Your task to perform on an android device: Open ESPN.com Image 0: 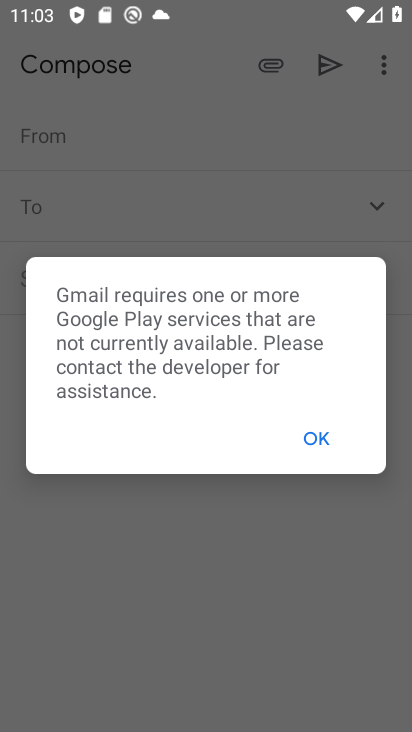
Step 0: press home button
Your task to perform on an android device: Open ESPN.com Image 1: 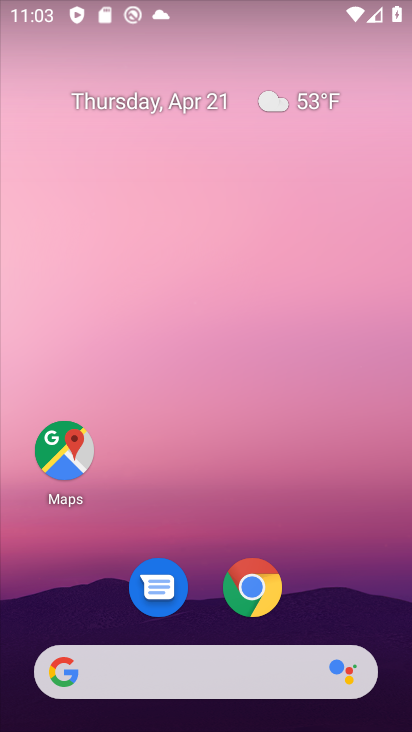
Step 1: click (252, 583)
Your task to perform on an android device: Open ESPN.com Image 2: 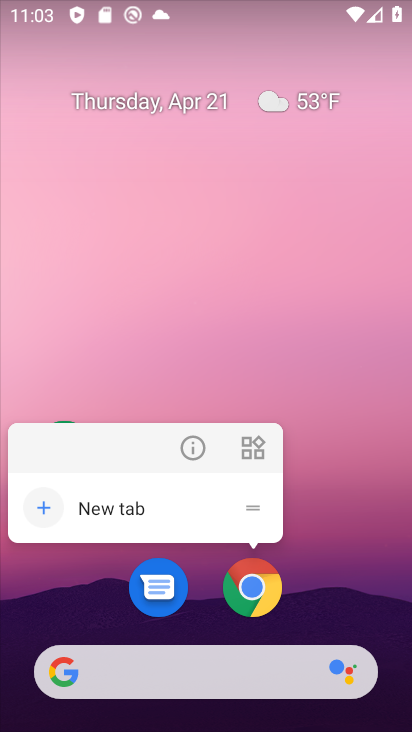
Step 2: click (252, 583)
Your task to perform on an android device: Open ESPN.com Image 3: 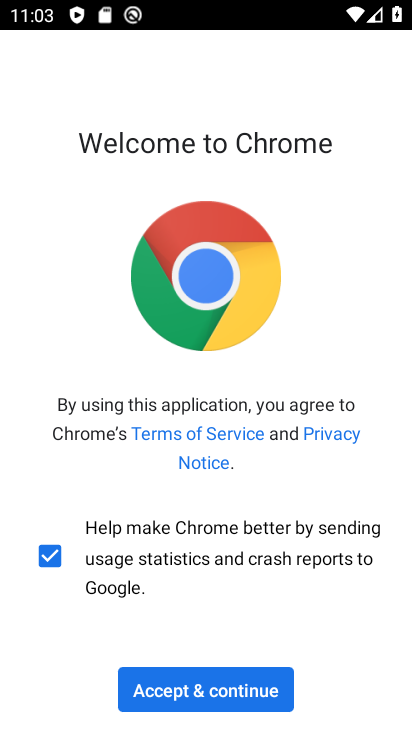
Step 3: click (231, 689)
Your task to perform on an android device: Open ESPN.com Image 4: 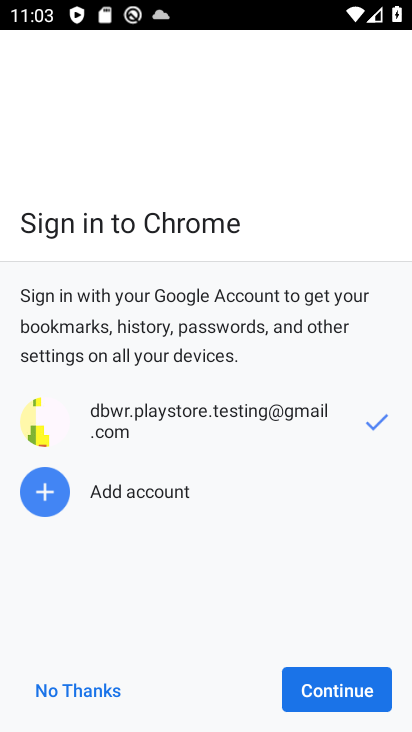
Step 4: click (329, 692)
Your task to perform on an android device: Open ESPN.com Image 5: 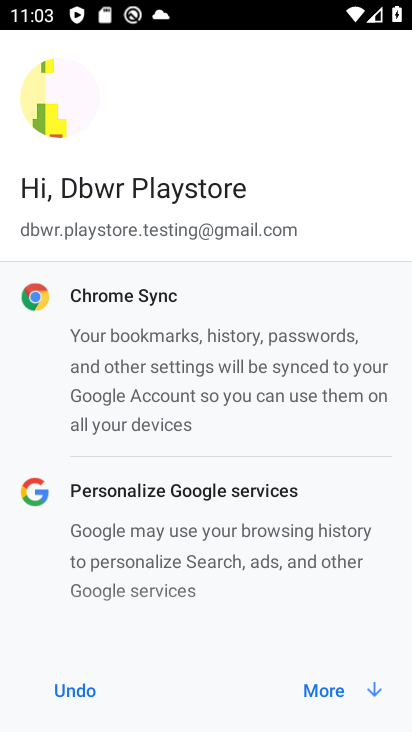
Step 5: click (320, 689)
Your task to perform on an android device: Open ESPN.com Image 6: 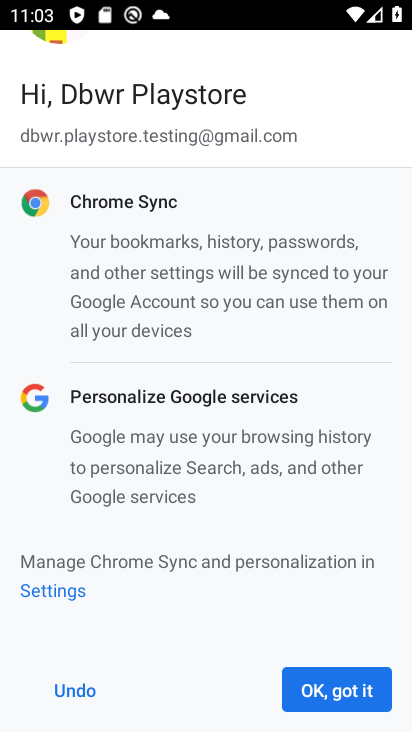
Step 6: click (321, 688)
Your task to perform on an android device: Open ESPN.com Image 7: 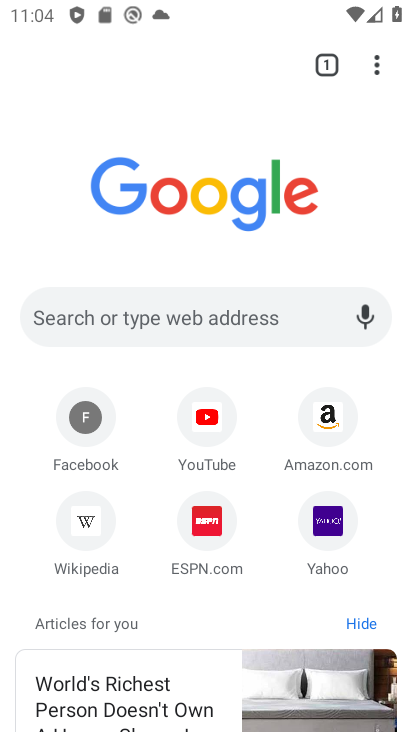
Step 7: click (212, 533)
Your task to perform on an android device: Open ESPN.com Image 8: 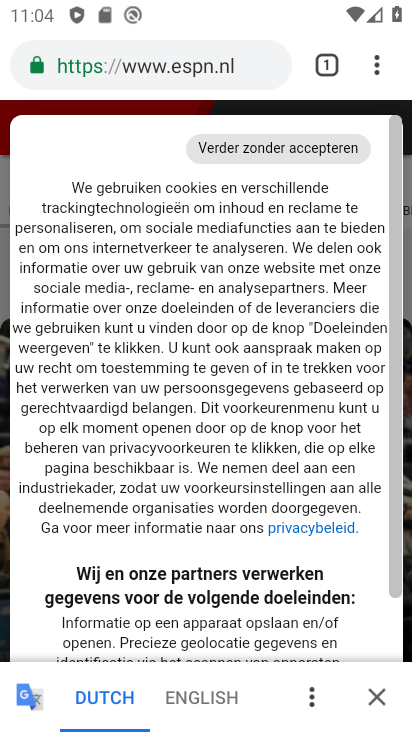
Step 8: task complete